Your task to perform on an android device: What's the latest news in tech? Image 0: 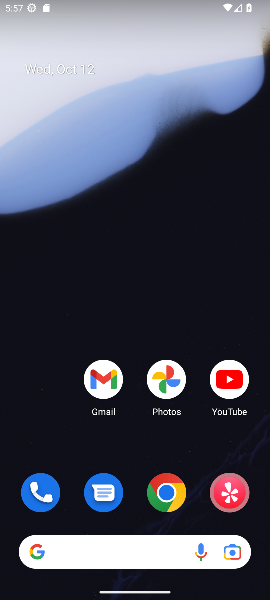
Step 0: click (168, 490)
Your task to perform on an android device: What's the latest news in tech? Image 1: 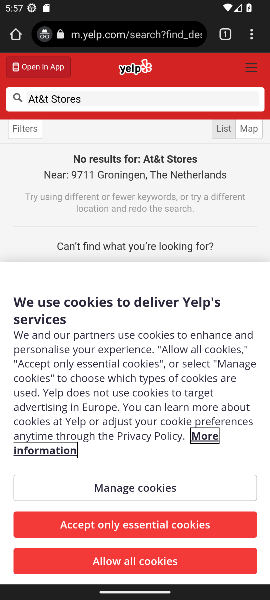
Step 1: click (141, 33)
Your task to perform on an android device: What's the latest news in tech? Image 2: 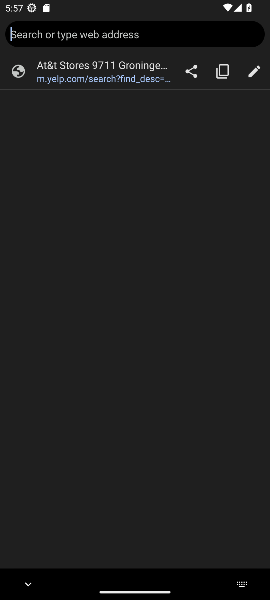
Step 2: type " latest news in tech"
Your task to perform on an android device: What's the latest news in tech? Image 3: 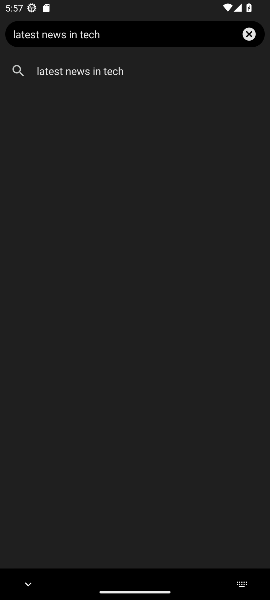
Step 3: click (108, 77)
Your task to perform on an android device: What's the latest news in tech? Image 4: 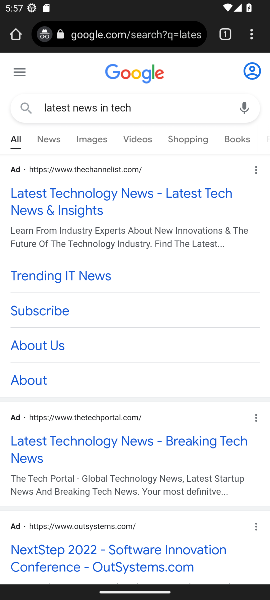
Step 4: click (47, 142)
Your task to perform on an android device: What's the latest news in tech? Image 5: 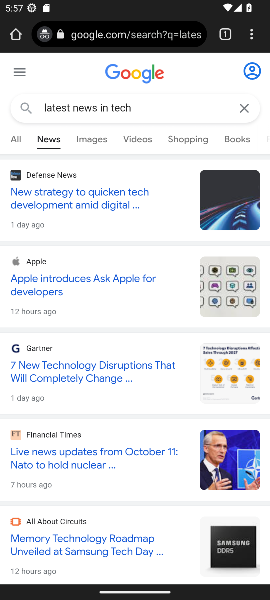
Step 5: click (69, 200)
Your task to perform on an android device: What's the latest news in tech? Image 6: 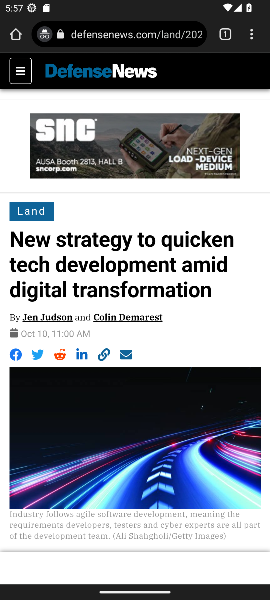
Step 6: task complete